Your task to perform on an android device: add a label to a message in the gmail app Image 0: 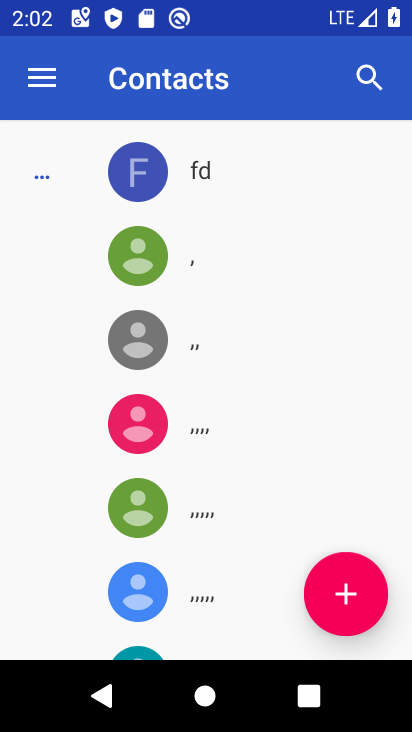
Step 0: press home button
Your task to perform on an android device: add a label to a message in the gmail app Image 1: 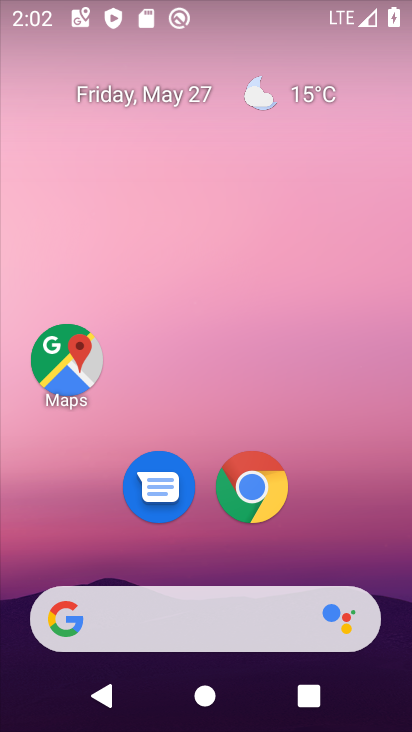
Step 1: drag from (347, 505) to (386, 125)
Your task to perform on an android device: add a label to a message in the gmail app Image 2: 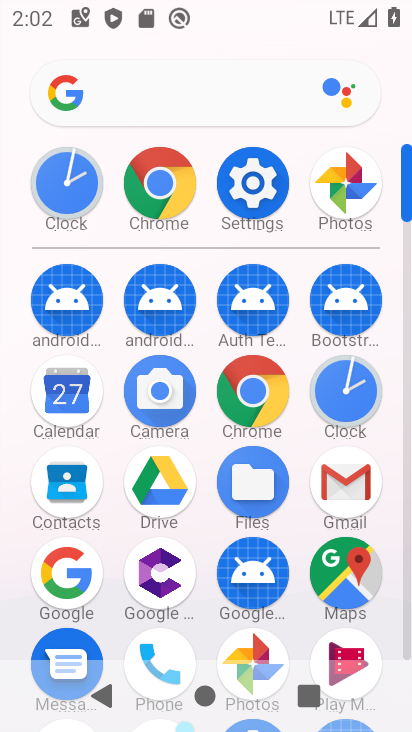
Step 2: click (344, 476)
Your task to perform on an android device: add a label to a message in the gmail app Image 3: 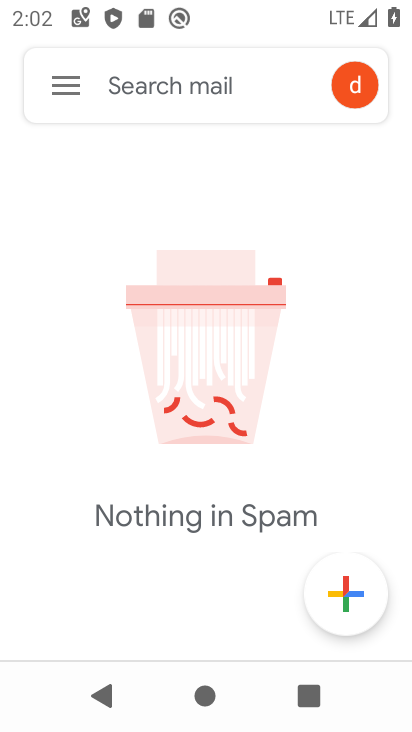
Step 3: click (68, 76)
Your task to perform on an android device: add a label to a message in the gmail app Image 4: 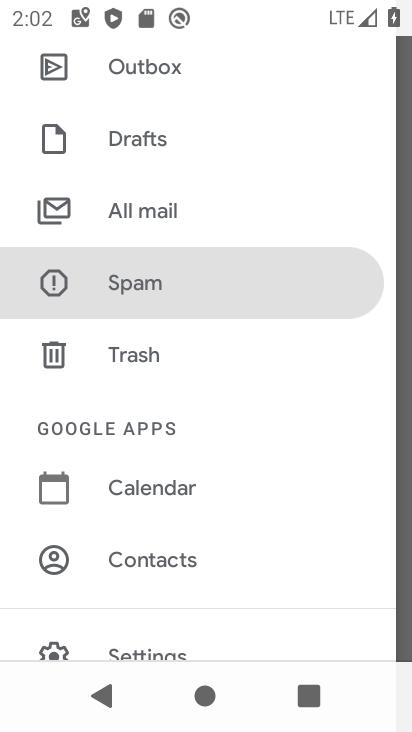
Step 4: drag from (275, 193) to (224, 604)
Your task to perform on an android device: add a label to a message in the gmail app Image 5: 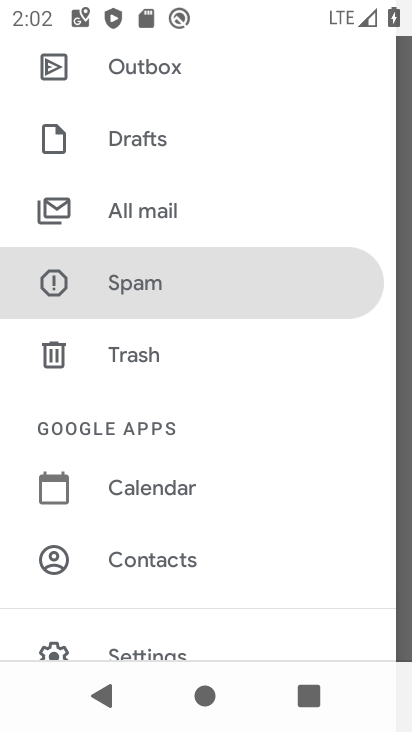
Step 5: drag from (110, 219) to (128, 595)
Your task to perform on an android device: add a label to a message in the gmail app Image 6: 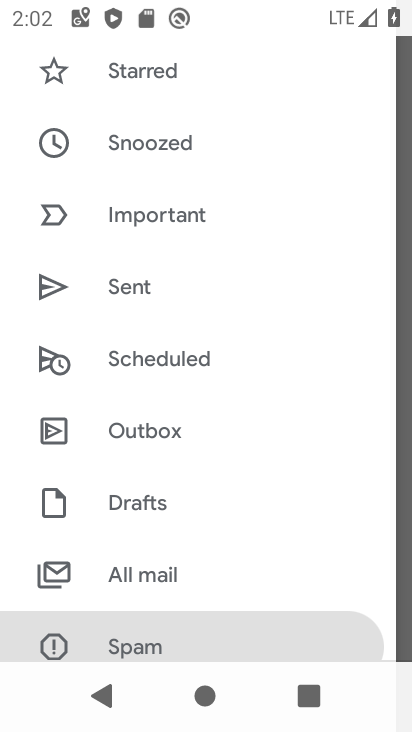
Step 6: drag from (157, 222) to (116, 581)
Your task to perform on an android device: add a label to a message in the gmail app Image 7: 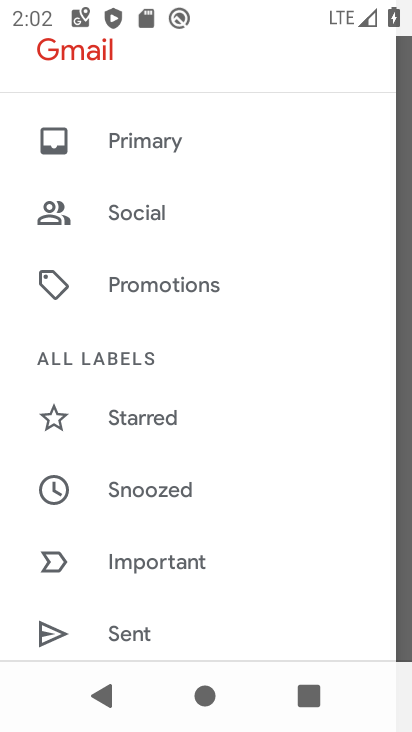
Step 7: drag from (117, 455) to (198, 308)
Your task to perform on an android device: add a label to a message in the gmail app Image 8: 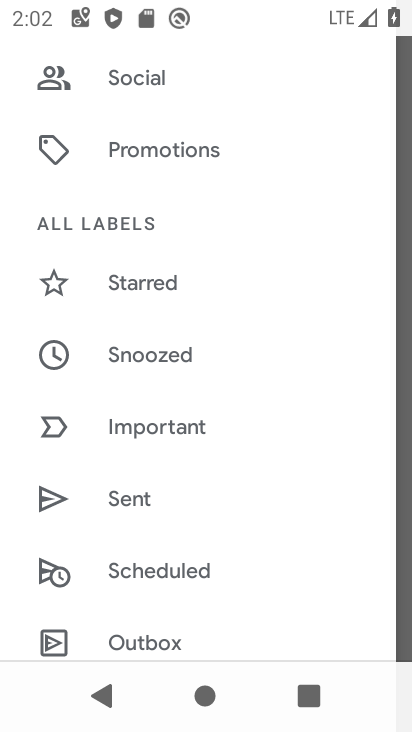
Step 8: drag from (165, 421) to (239, 346)
Your task to perform on an android device: add a label to a message in the gmail app Image 9: 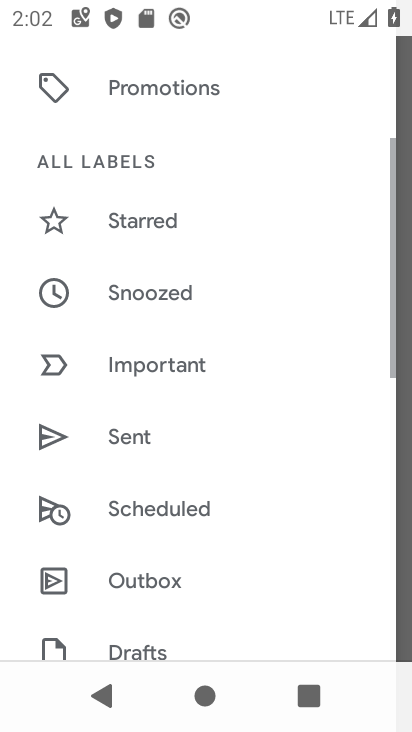
Step 9: drag from (239, 346) to (340, 255)
Your task to perform on an android device: add a label to a message in the gmail app Image 10: 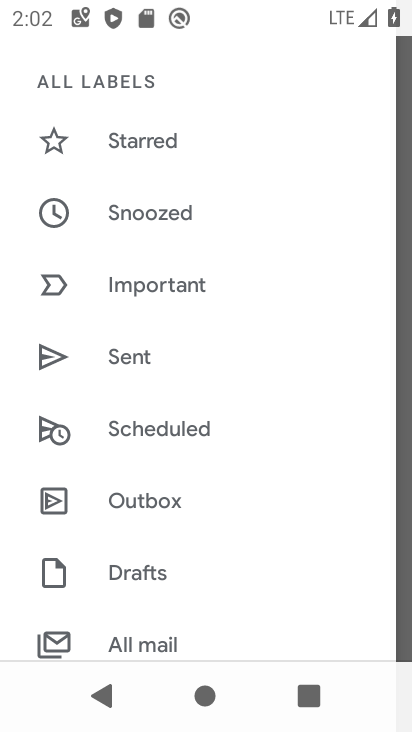
Step 10: drag from (130, 532) to (232, 290)
Your task to perform on an android device: add a label to a message in the gmail app Image 11: 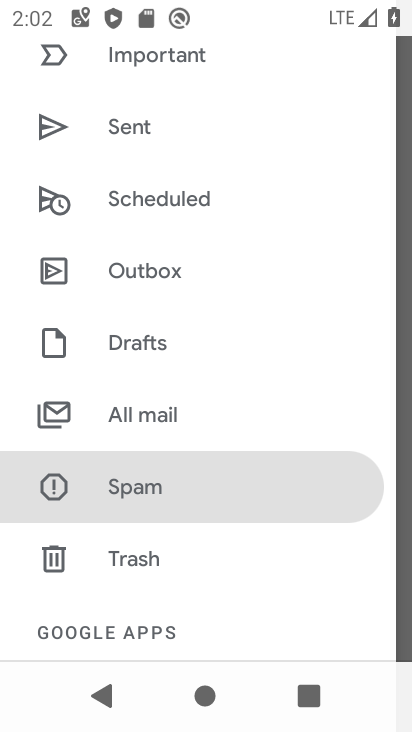
Step 11: click (156, 421)
Your task to perform on an android device: add a label to a message in the gmail app Image 12: 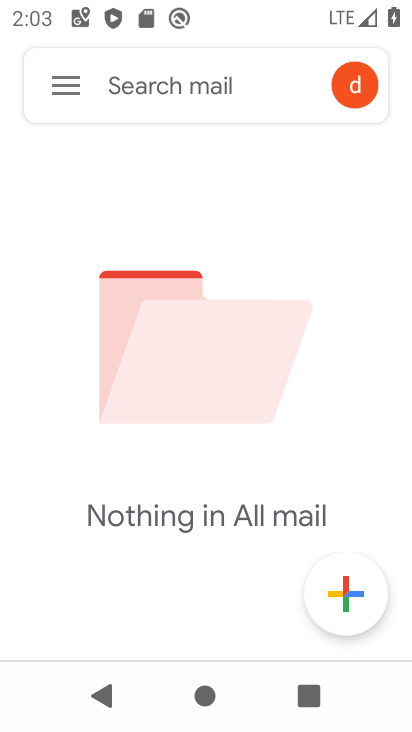
Step 12: task complete